Your task to perform on an android device: Go to display settings Image 0: 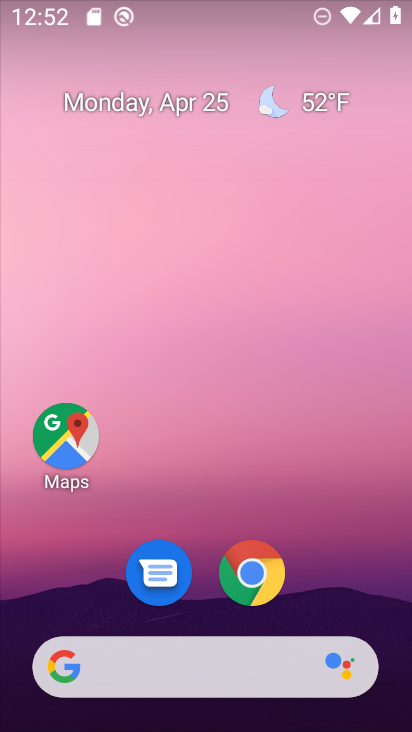
Step 0: drag from (199, 658) to (193, 281)
Your task to perform on an android device: Go to display settings Image 1: 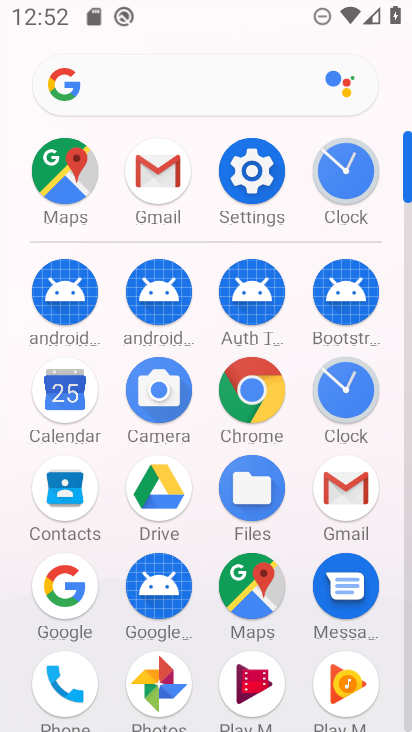
Step 1: click (252, 170)
Your task to perform on an android device: Go to display settings Image 2: 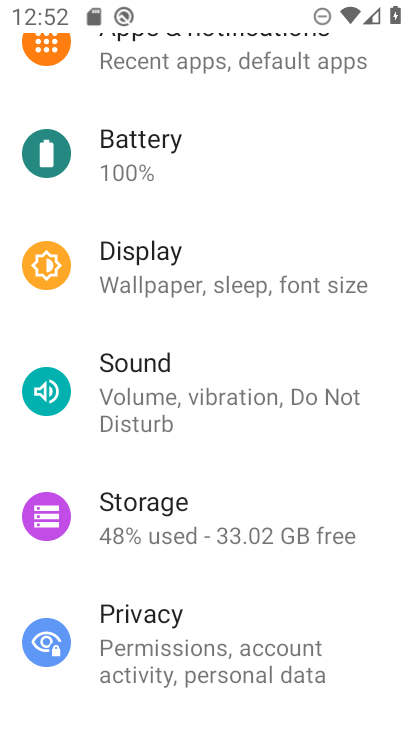
Step 2: click (165, 264)
Your task to perform on an android device: Go to display settings Image 3: 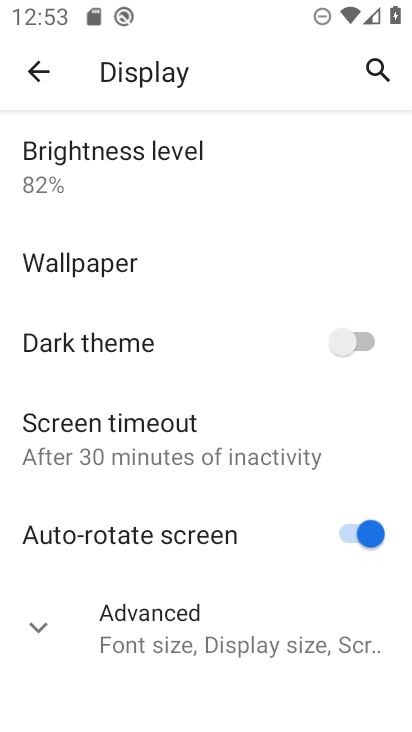
Step 3: task complete